Your task to perform on an android device: Check the weather Image 0: 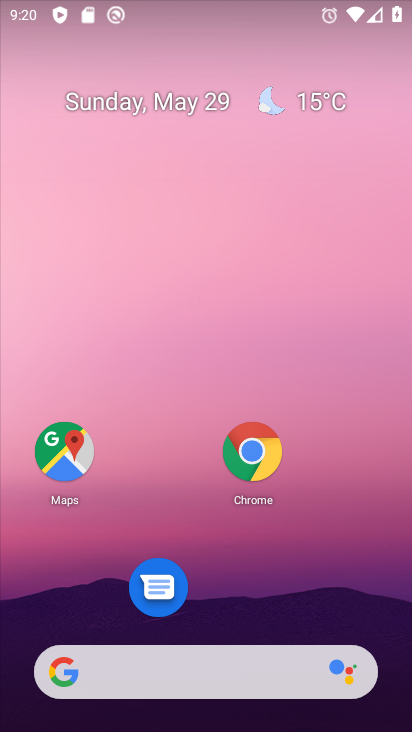
Step 0: click (317, 104)
Your task to perform on an android device: Check the weather Image 1: 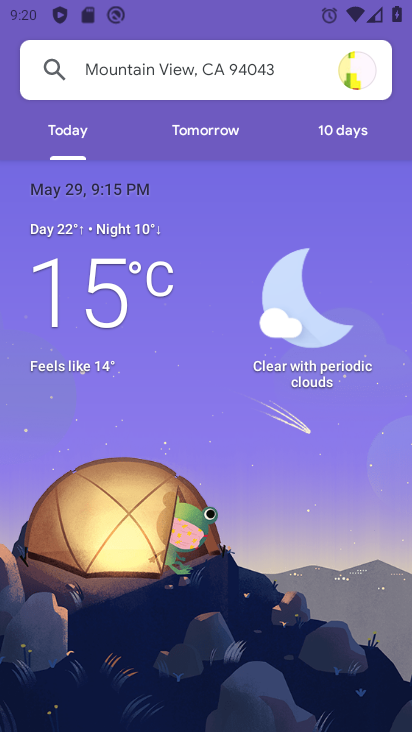
Step 1: task complete